Your task to perform on an android device: check battery use Image 0: 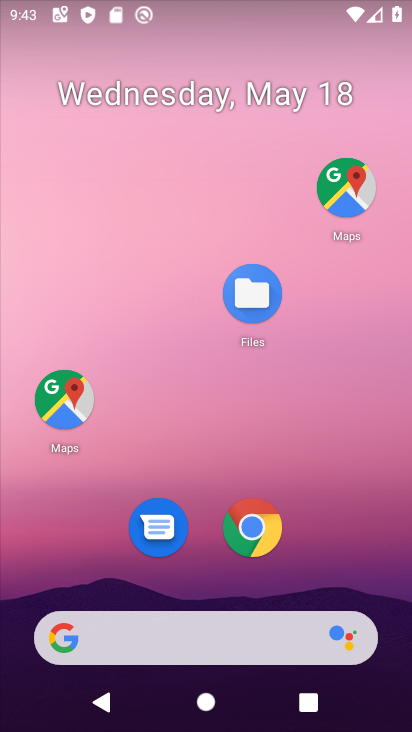
Step 0: drag from (330, 546) to (268, 119)
Your task to perform on an android device: check battery use Image 1: 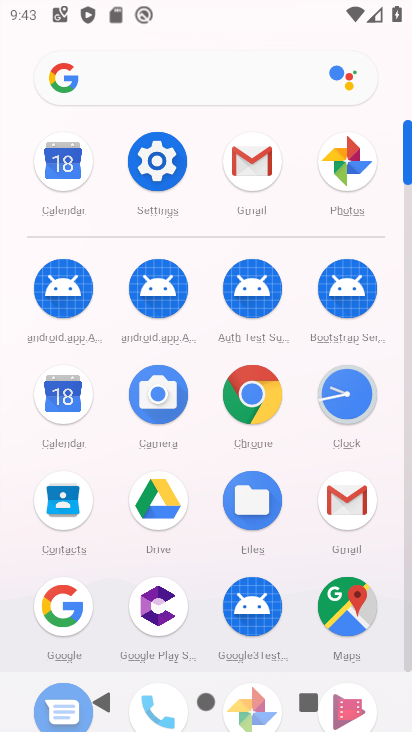
Step 1: click (155, 169)
Your task to perform on an android device: check battery use Image 2: 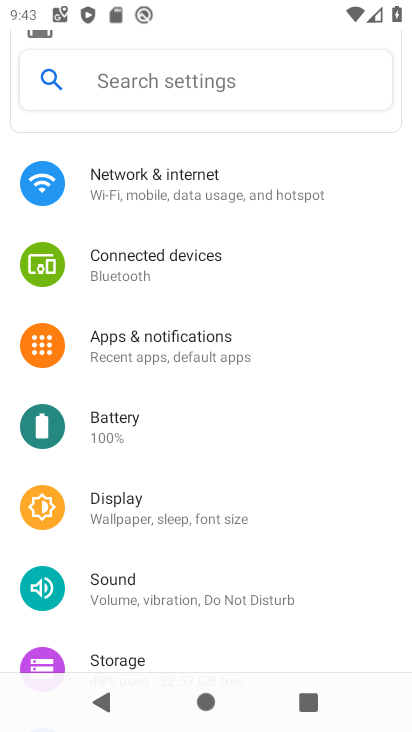
Step 2: click (158, 430)
Your task to perform on an android device: check battery use Image 3: 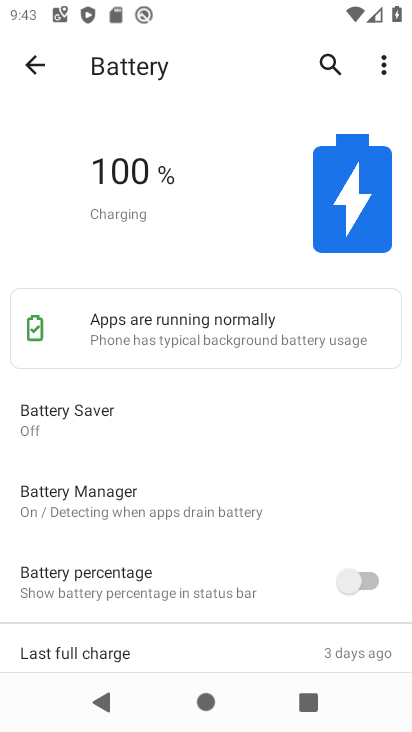
Step 3: task complete